Your task to perform on an android device: Do I have any events today? Image 0: 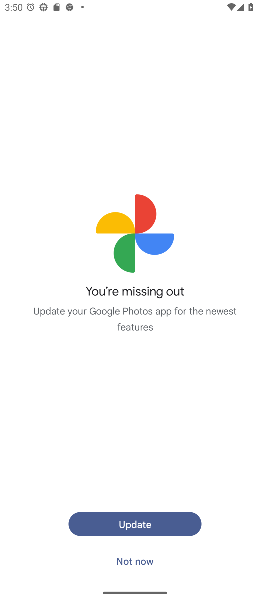
Step 0: press back button
Your task to perform on an android device: Do I have any events today? Image 1: 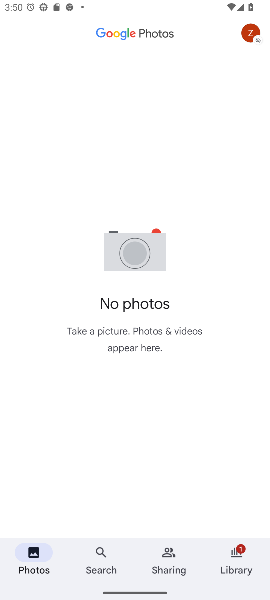
Step 1: press home button
Your task to perform on an android device: Do I have any events today? Image 2: 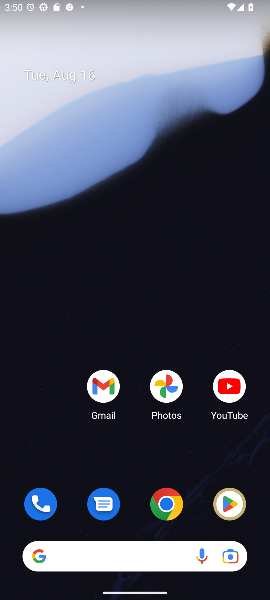
Step 2: drag from (129, 493) to (110, 135)
Your task to perform on an android device: Do I have any events today? Image 3: 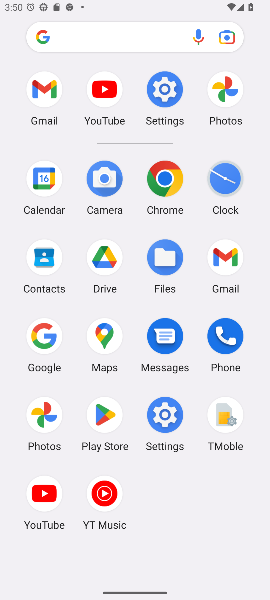
Step 3: click (29, 182)
Your task to perform on an android device: Do I have any events today? Image 4: 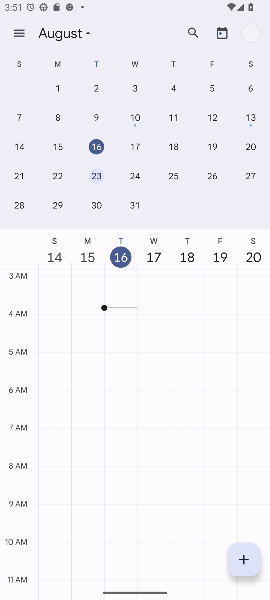
Step 4: click (93, 143)
Your task to perform on an android device: Do I have any events today? Image 5: 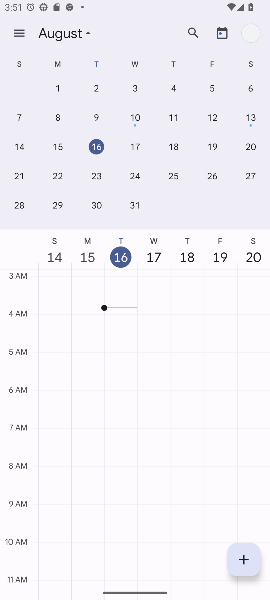
Step 5: task complete